Your task to perform on an android device: find photos in the google photos app Image 0: 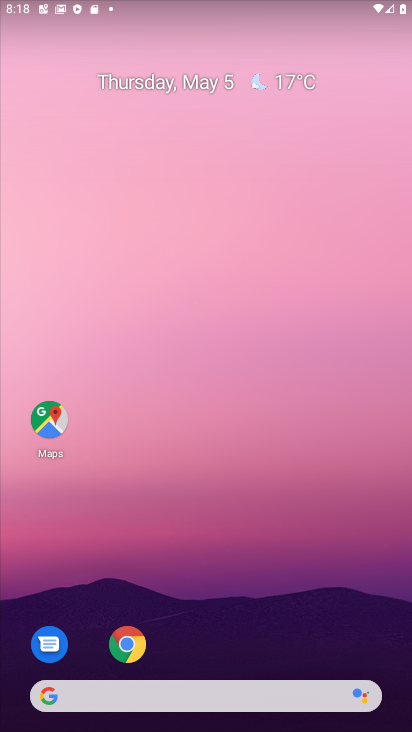
Step 0: drag from (253, 640) to (229, 430)
Your task to perform on an android device: find photos in the google photos app Image 1: 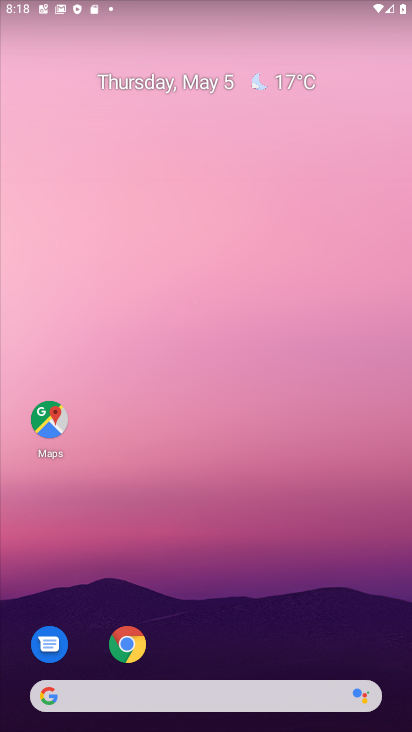
Step 1: drag from (270, 602) to (251, 152)
Your task to perform on an android device: find photos in the google photos app Image 2: 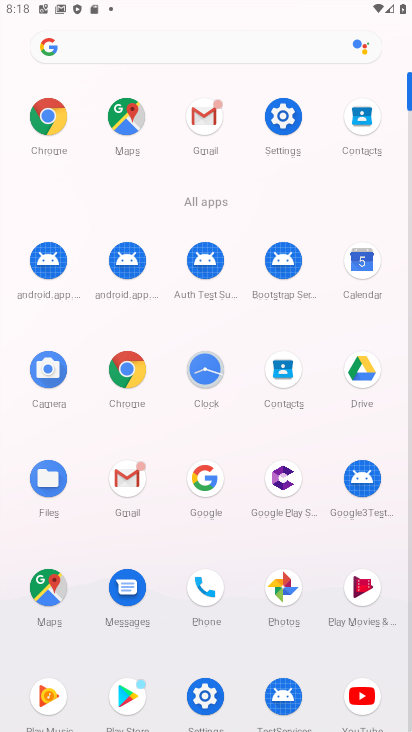
Step 2: click (274, 579)
Your task to perform on an android device: find photos in the google photos app Image 3: 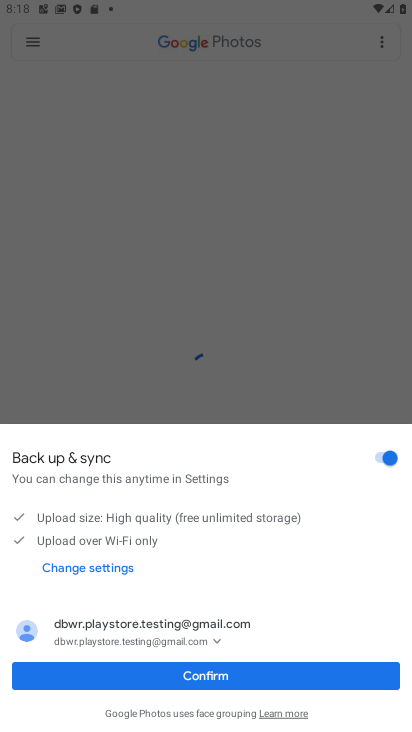
Step 3: click (290, 669)
Your task to perform on an android device: find photos in the google photos app Image 4: 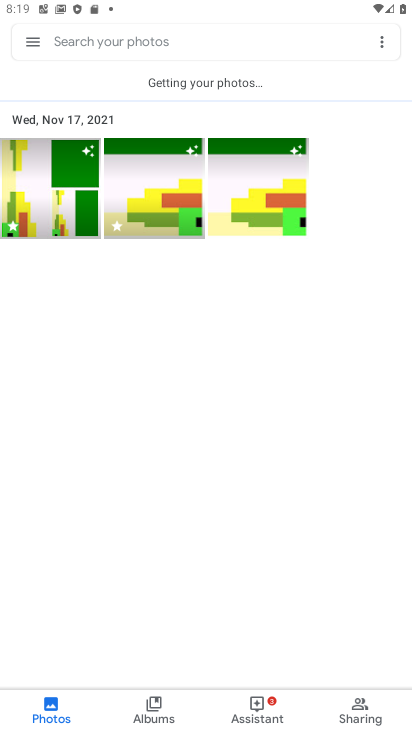
Step 4: task complete